Your task to perform on an android device: change the clock display to show seconds Image 0: 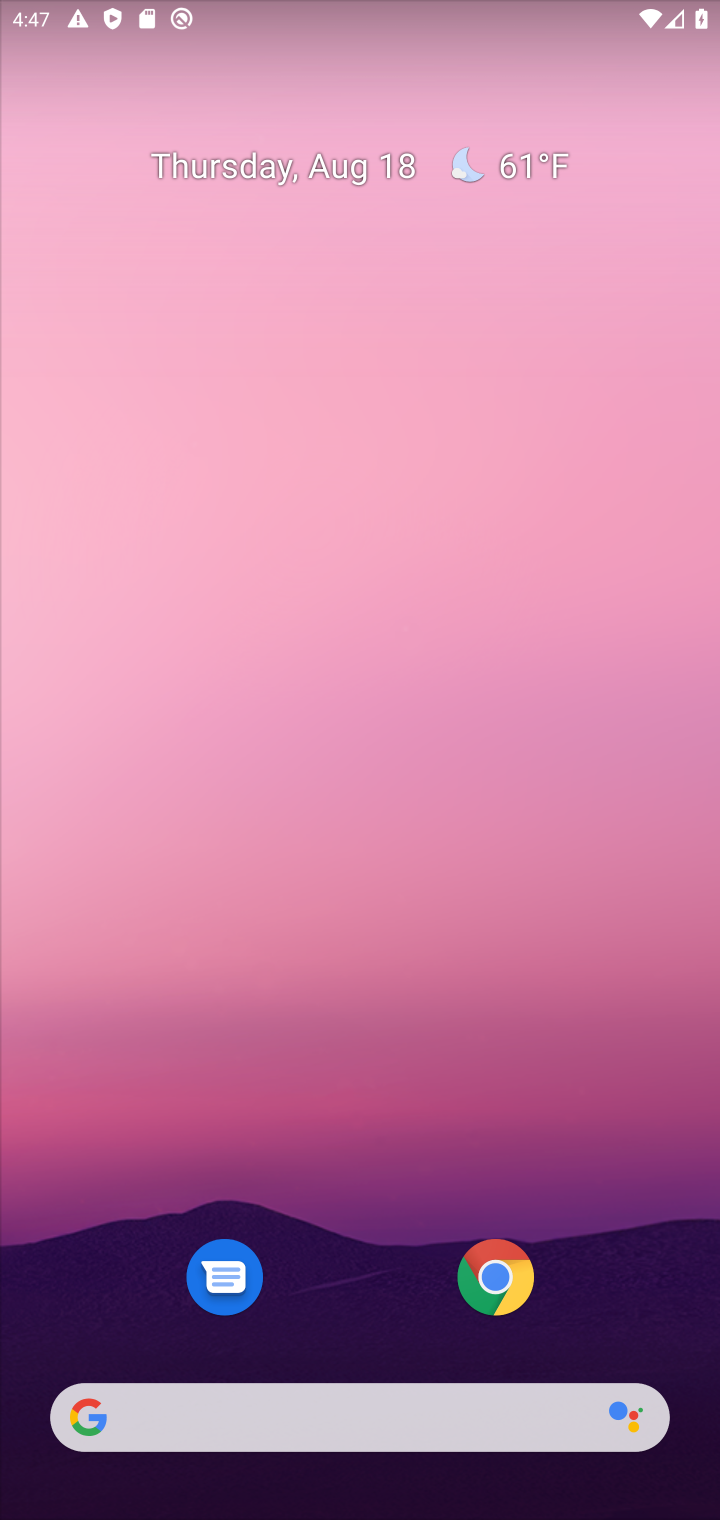
Step 0: drag from (431, 730) to (705, 684)
Your task to perform on an android device: change the clock display to show seconds Image 1: 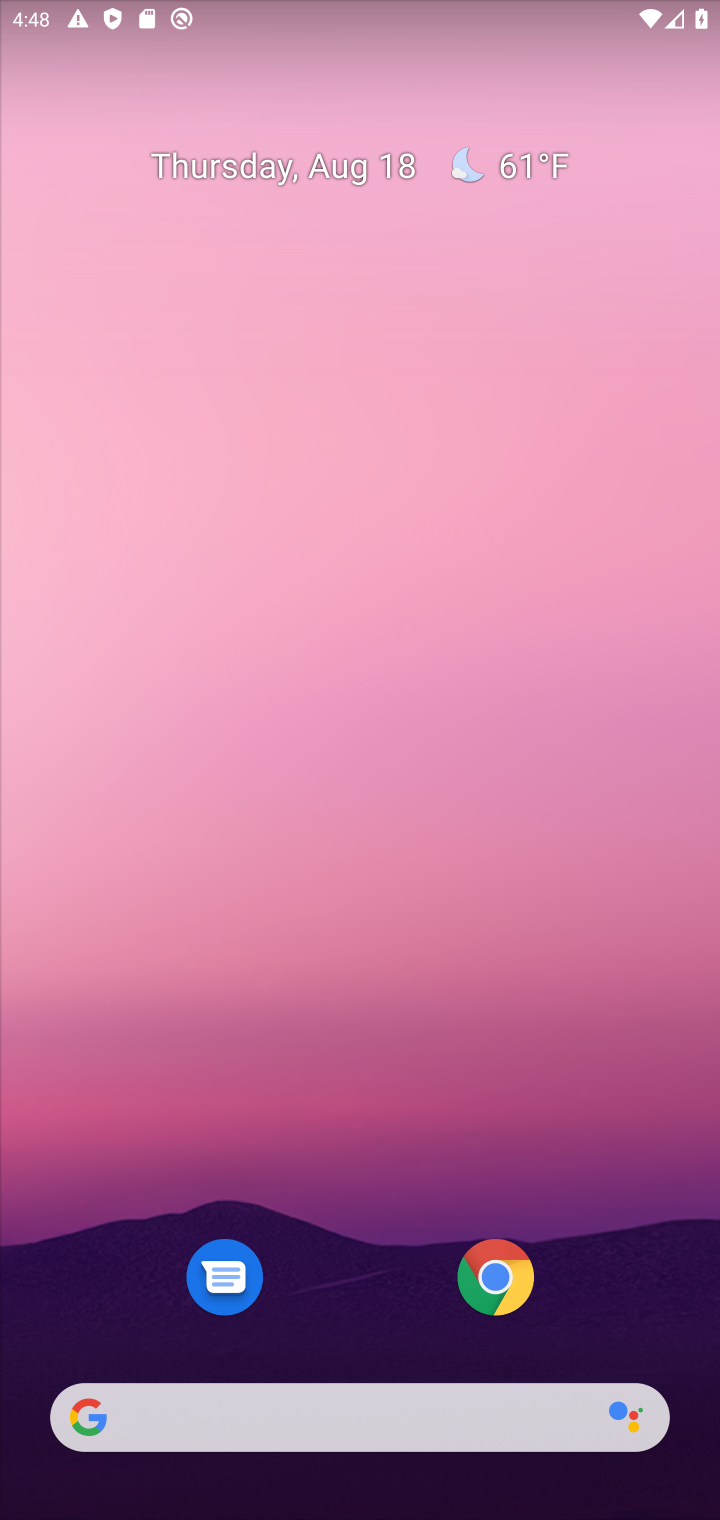
Step 1: task complete